Your task to perform on an android device: turn pop-ups off in chrome Image 0: 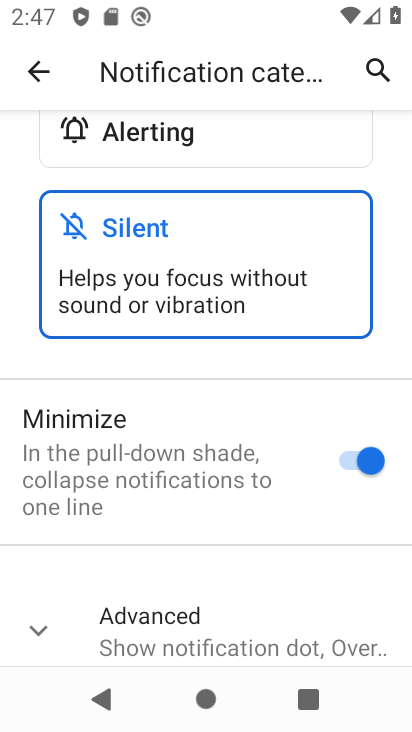
Step 0: press home button
Your task to perform on an android device: turn pop-ups off in chrome Image 1: 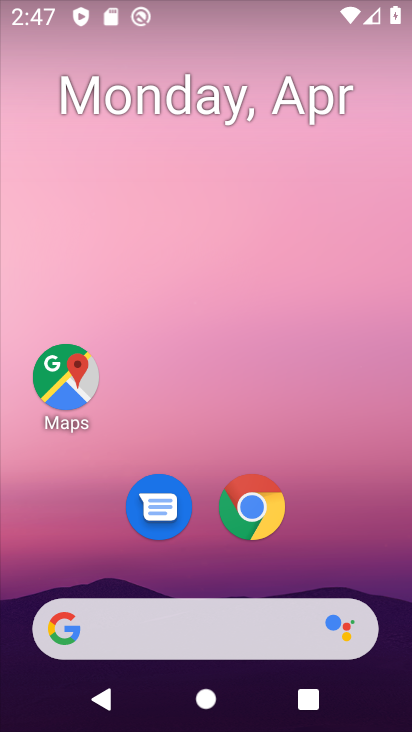
Step 1: click (263, 514)
Your task to perform on an android device: turn pop-ups off in chrome Image 2: 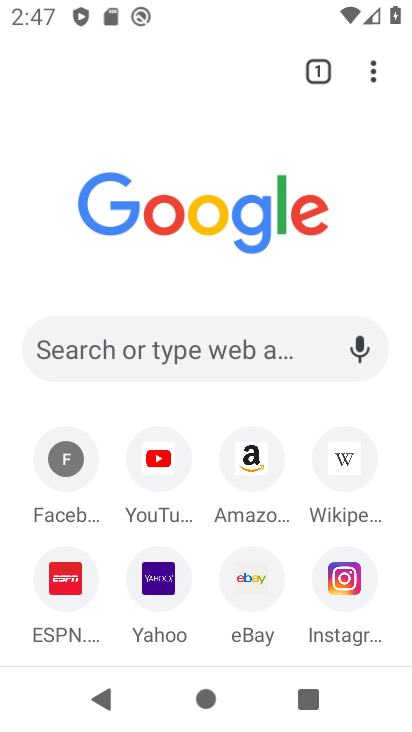
Step 2: drag from (374, 97) to (191, 504)
Your task to perform on an android device: turn pop-ups off in chrome Image 3: 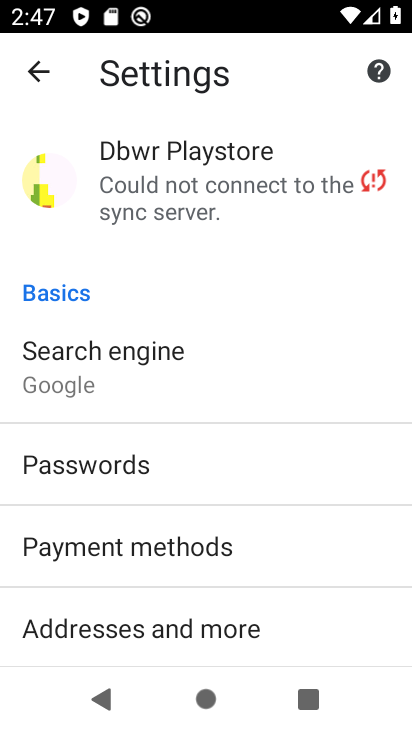
Step 3: drag from (305, 606) to (248, 172)
Your task to perform on an android device: turn pop-ups off in chrome Image 4: 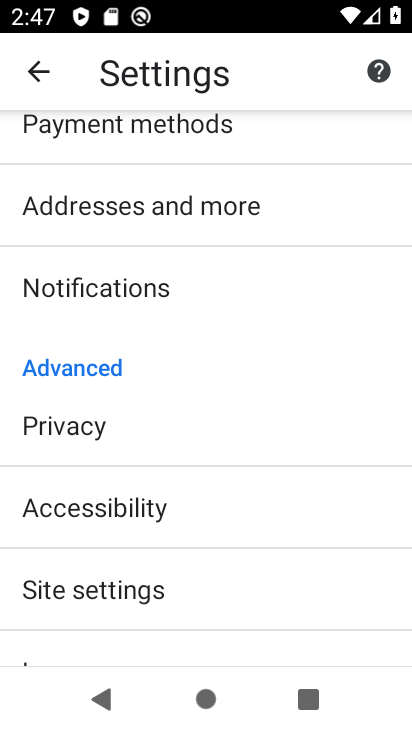
Step 4: drag from (331, 532) to (288, 209)
Your task to perform on an android device: turn pop-ups off in chrome Image 5: 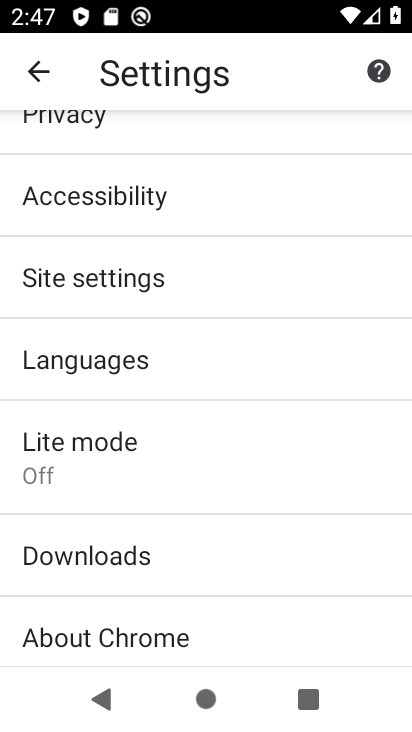
Step 5: click (257, 281)
Your task to perform on an android device: turn pop-ups off in chrome Image 6: 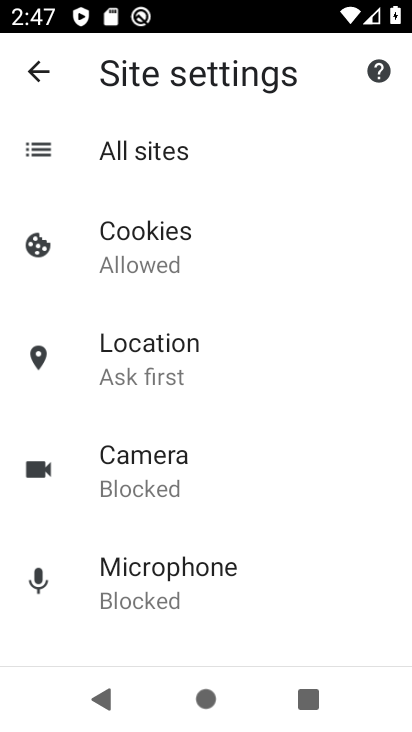
Step 6: drag from (288, 613) to (239, 136)
Your task to perform on an android device: turn pop-ups off in chrome Image 7: 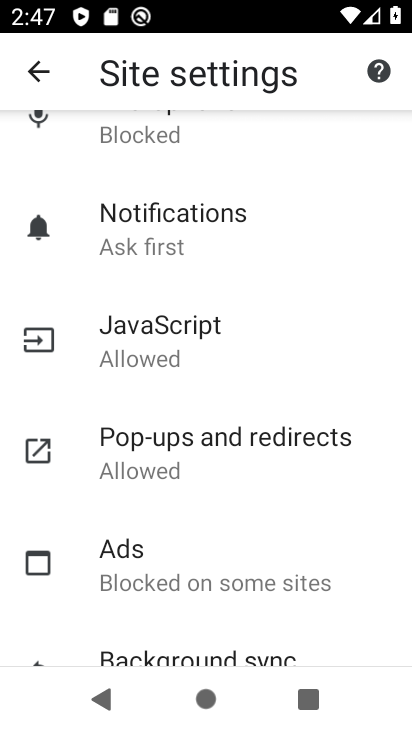
Step 7: click (314, 420)
Your task to perform on an android device: turn pop-ups off in chrome Image 8: 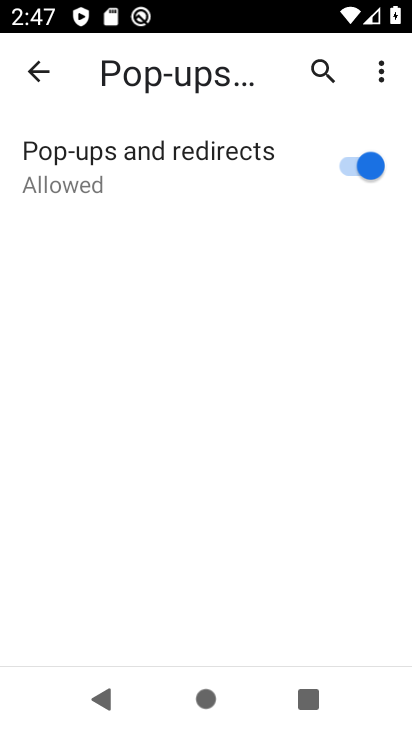
Step 8: click (358, 150)
Your task to perform on an android device: turn pop-ups off in chrome Image 9: 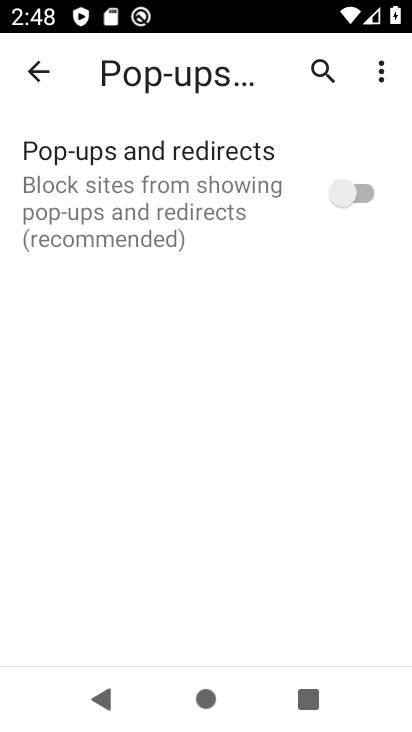
Step 9: task complete